Your task to perform on an android device: turn on the 24-hour format for clock Image 0: 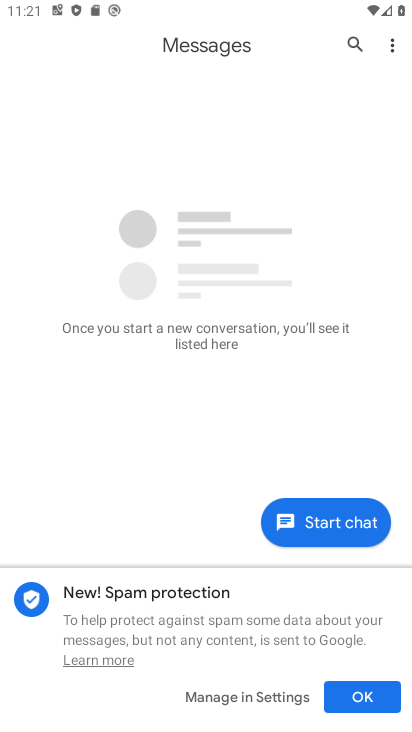
Step 0: press home button
Your task to perform on an android device: turn on the 24-hour format for clock Image 1: 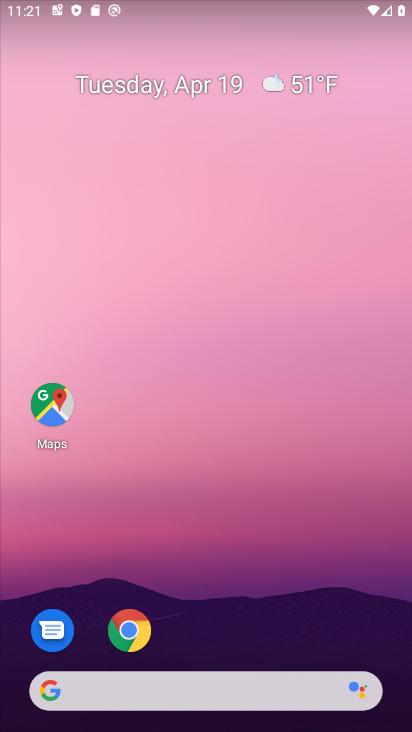
Step 1: drag from (331, 627) to (285, 239)
Your task to perform on an android device: turn on the 24-hour format for clock Image 2: 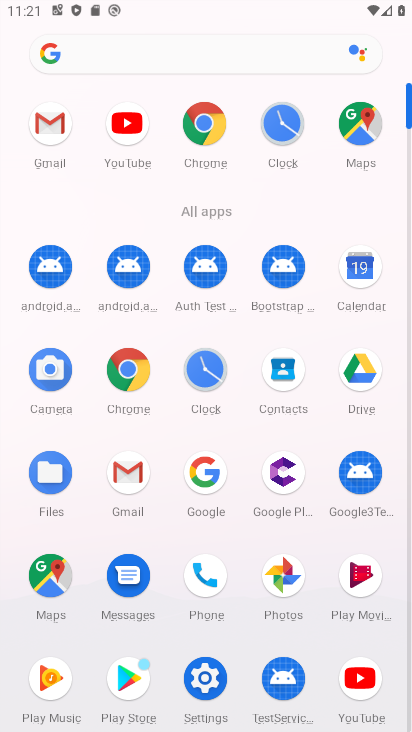
Step 2: click (207, 361)
Your task to perform on an android device: turn on the 24-hour format for clock Image 3: 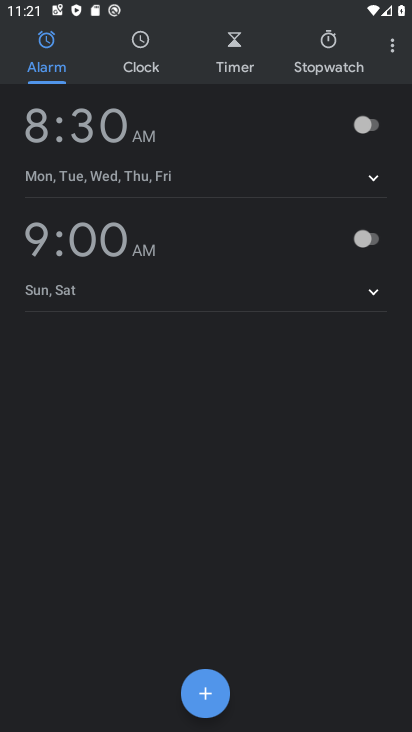
Step 3: click (401, 50)
Your task to perform on an android device: turn on the 24-hour format for clock Image 4: 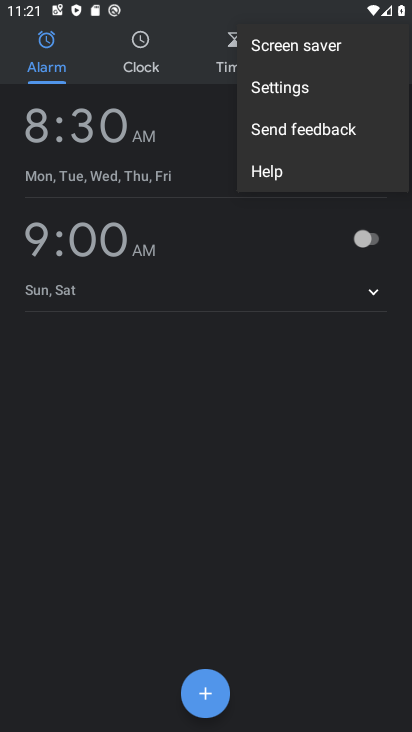
Step 4: click (379, 92)
Your task to perform on an android device: turn on the 24-hour format for clock Image 5: 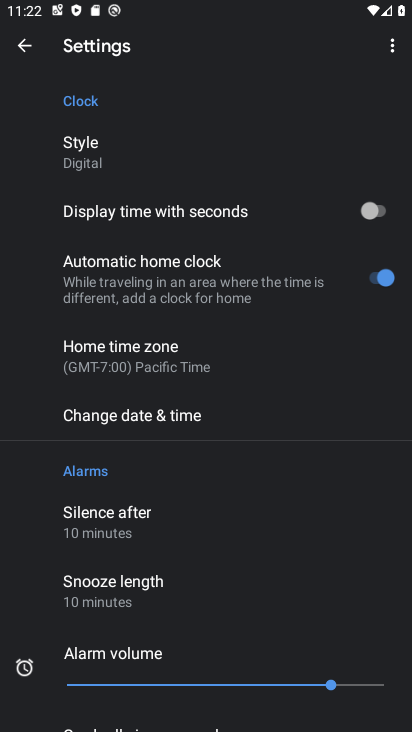
Step 5: click (270, 400)
Your task to perform on an android device: turn on the 24-hour format for clock Image 6: 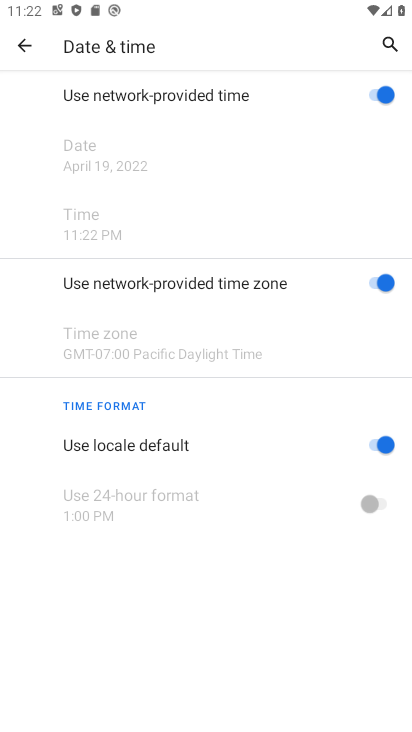
Step 6: click (376, 451)
Your task to perform on an android device: turn on the 24-hour format for clock Image 7: 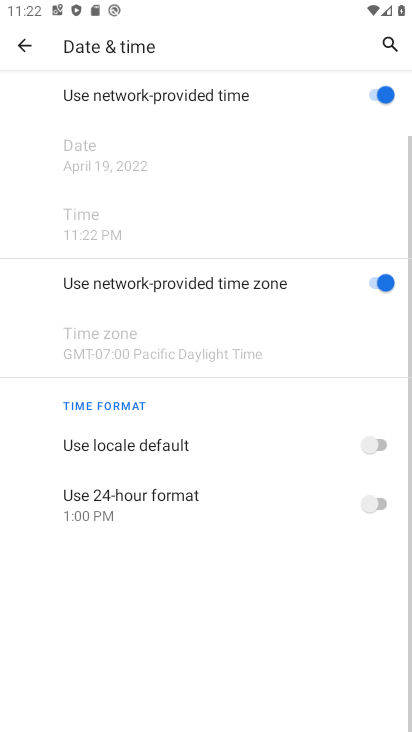
Step 7: click (383, 501)
Your task to perform on an android device: turn on the 24-hour format for clock Image 8: 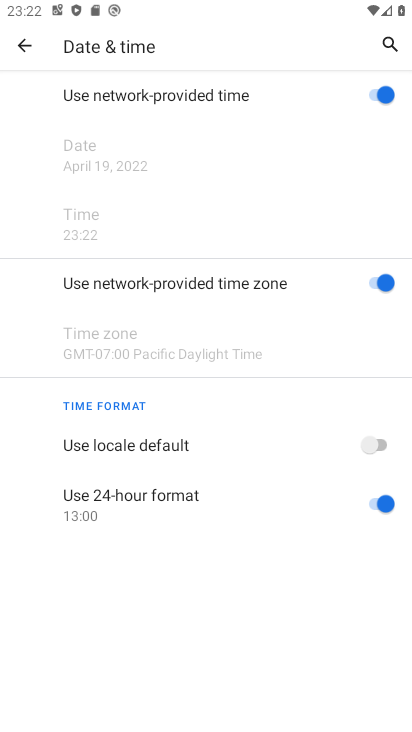
Step 8: task complete